Your task to perform on an android device: Open network settings Image 0: 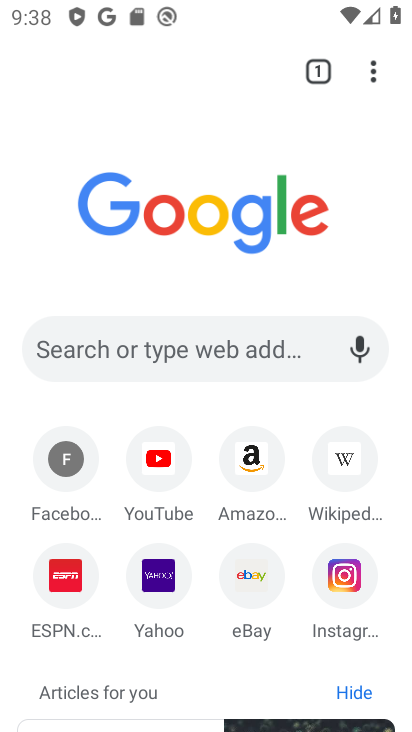
Step 0: press home button
Your task to perform on an android device: Open network settings Image 1: 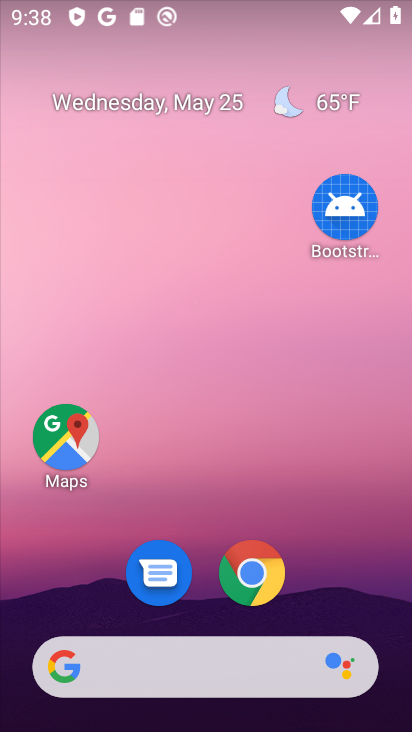
Step 1: drag from (339, 553) to (314, 5)
Your task to perform on an android device: Open network settings Image 2: 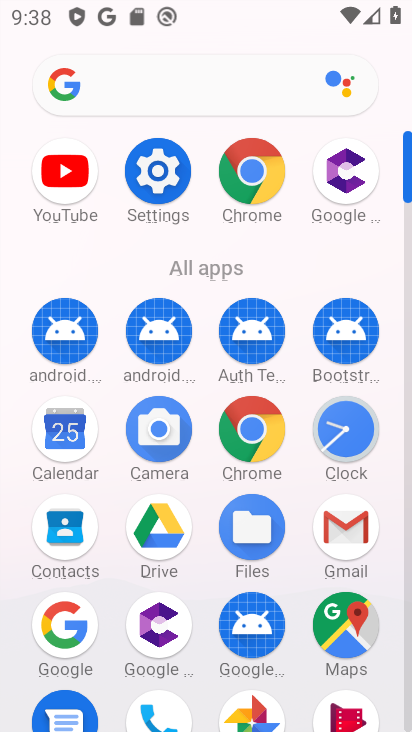
Step 2: click (151, 167)
Your task to perform on an android device: Open network settings Image 3: 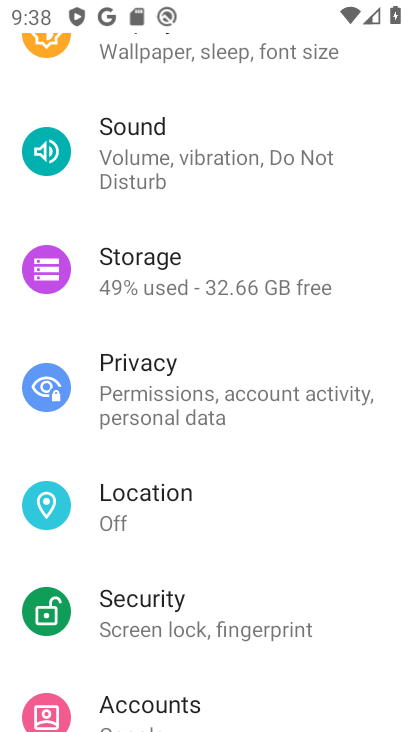
Step 3: drag from (151, 144) to (187, 586)
Your task to perform on an android device: Open network settings Image 4: 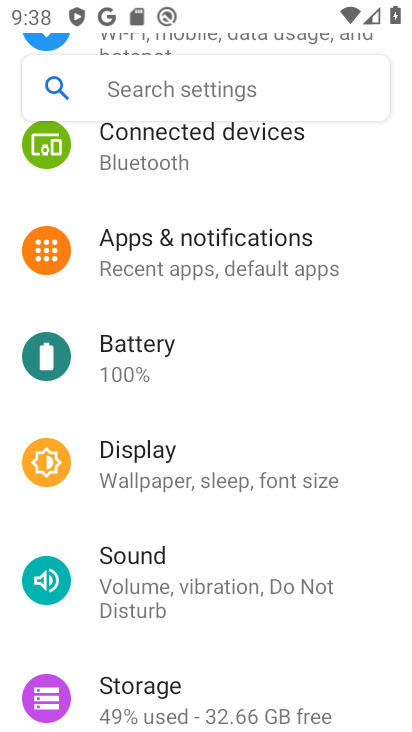
Step 4: drag from (179, 156) to (172, 424)
Your task to perform on an android device: Open network settings Image 5: 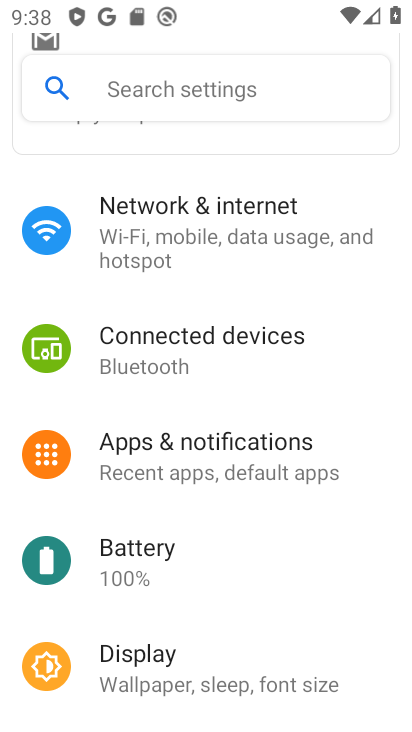
Step 5: click (138, 247)
Your task to perform on an android device: Open network settings Image 6: 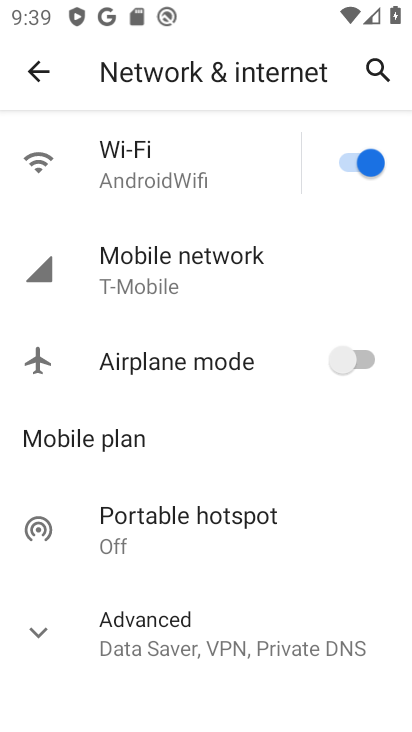
Step 6: task complete